Your task to perform on an android device: turn off location history Image 0: 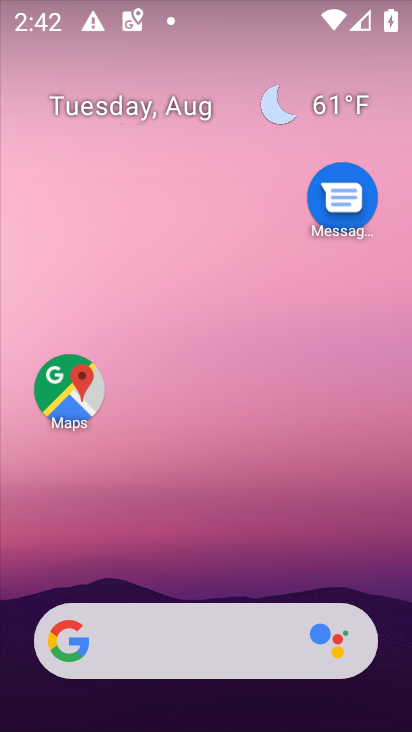
Step 0: drag from (265, 581) to (232, 72)
Your task to perform on an android device: turn off location history Image 1: 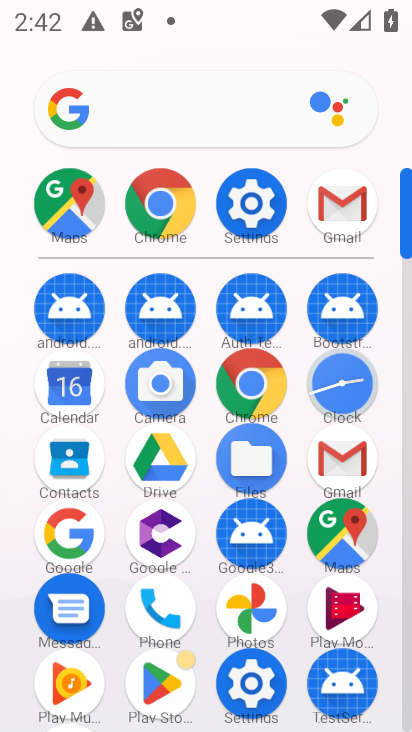
Step 1: click (257, 204)
Your task to perform on an android device: turn off location history Image 2: 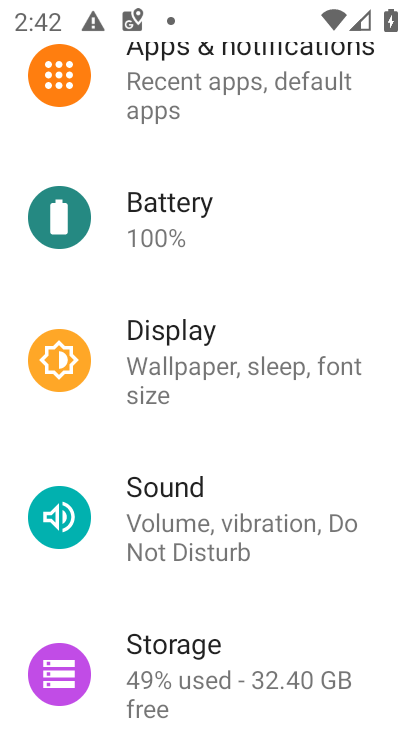
Step 2: drag from (262, 586) to (263, 353)
Your task to perform on an android device: turn off location history Image 3: 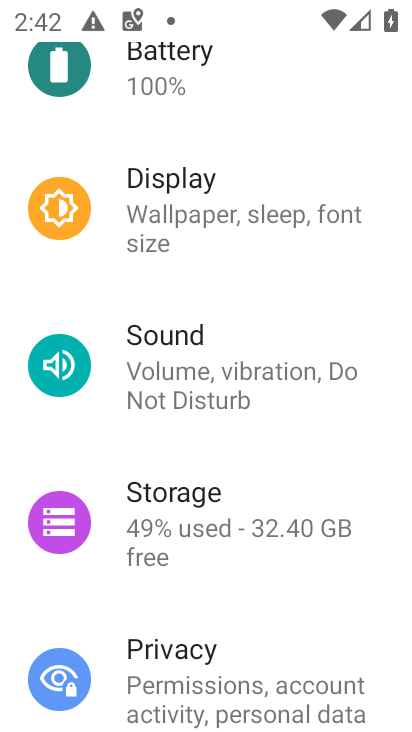
Step 3: drag from (248, 668) to (247, 361)
Your task to perform on an android device: turn off location history Image 4: 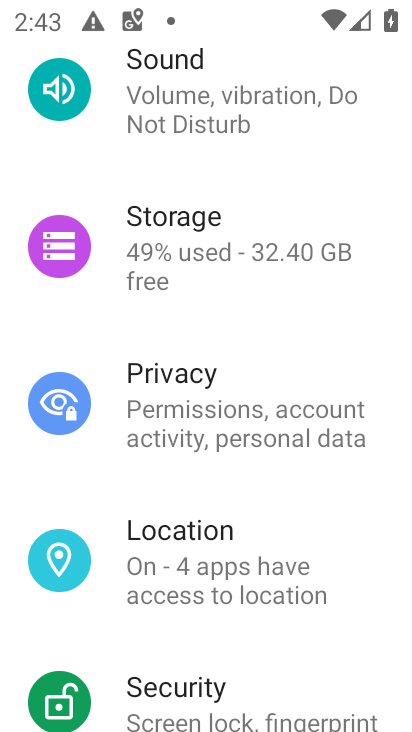
Step 4: click (229, 587)
Your task to perform on an android device: turn off location history Image 5: 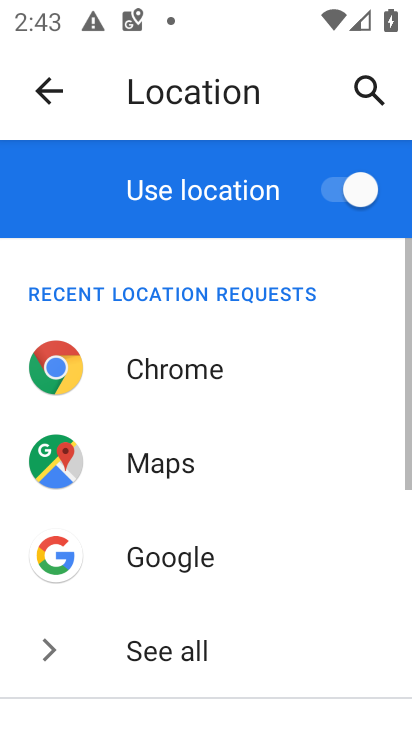
Step 5: task complete